Your task to perform on an android device: see sites visited before in the chrome app Image 0: 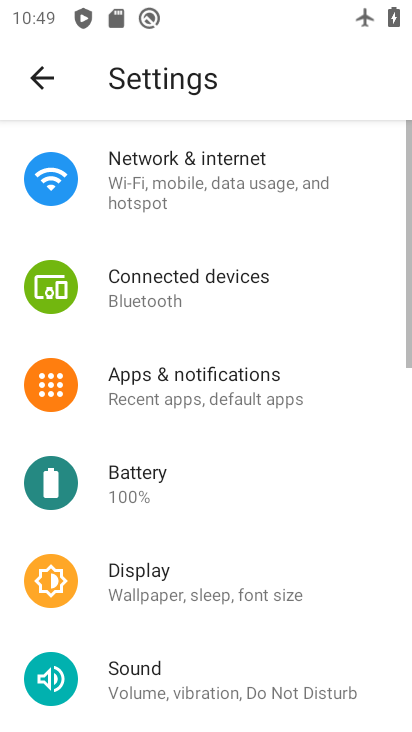
Step 0: press home button
Your task to perform on an android device: see sites visited before in the chrome app Image 1: 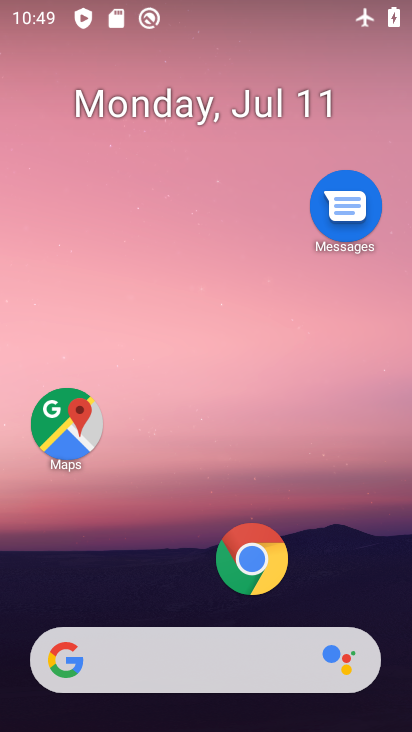
Step 1: drag from (359, 575) to (321, 231)
Your task to perform on an android device: see sites visited before in the chrome app Image 2: 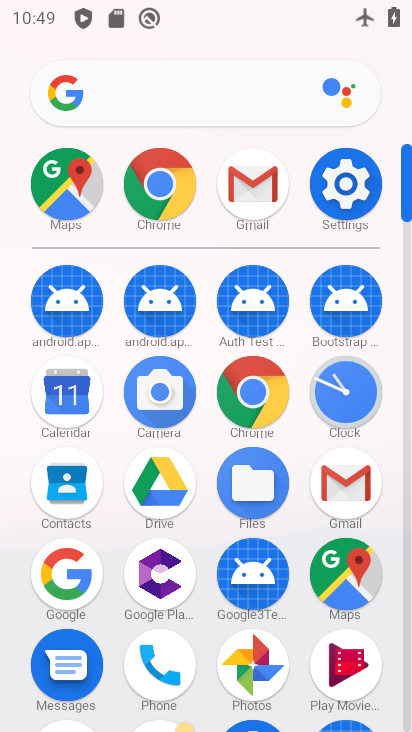
Step 2: click (263, 398)
Your task to perform on an android device: see sites visited before in the chrome app Image 3: 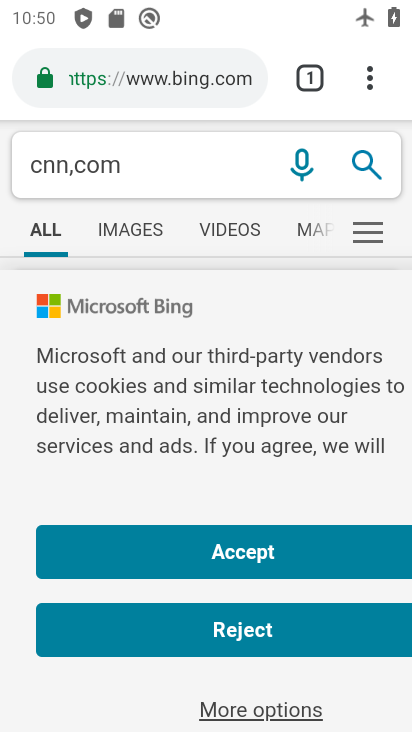
Step 3: click (368, 80)
Your task to perform on an android device: see sites visited before in the chrome app Image 4: 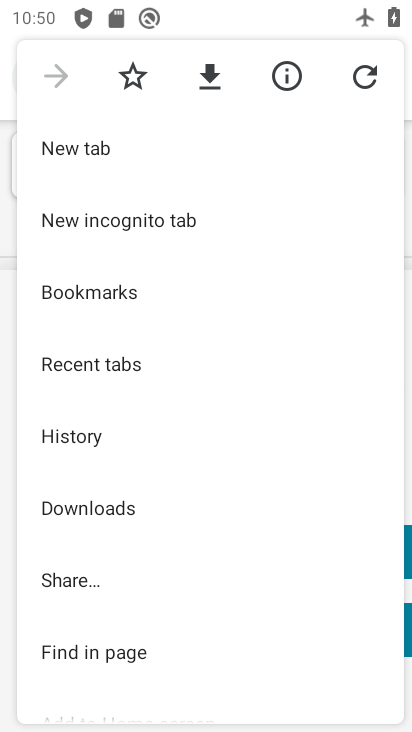
Step 4: click (95, 437)
Your task to perform on an android device: see sites visited before in the chrome app Image 5: 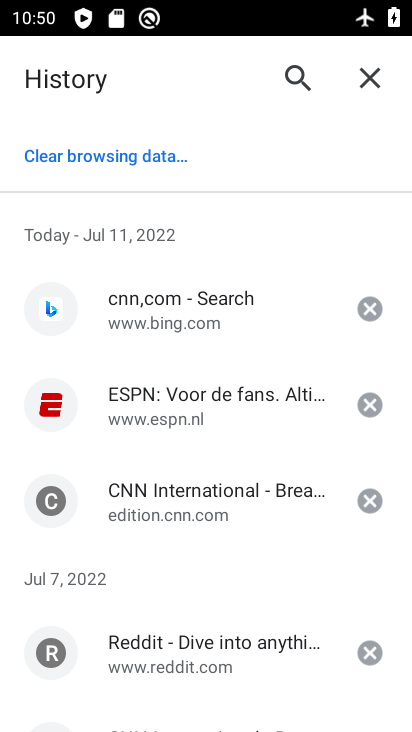
Step 5: task complete